Your task to perform on an android device: Open the stopwatch Image 0: 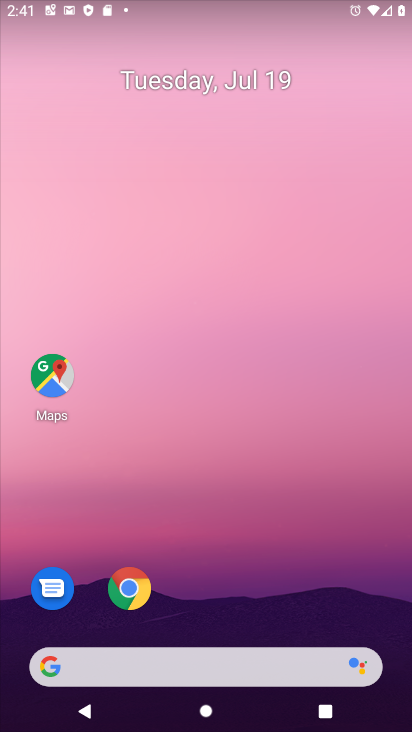
Step 0: drag from (393, 650) to (278, 66)
Your task to perform on an android device: Open the stopwatch Image 1: 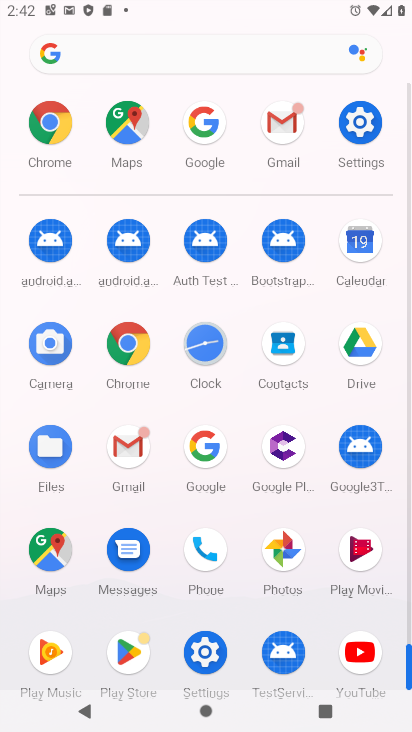
Step 1: click (206, 354)
Your task to perform on an android device: Open the stopwatch Image 2: 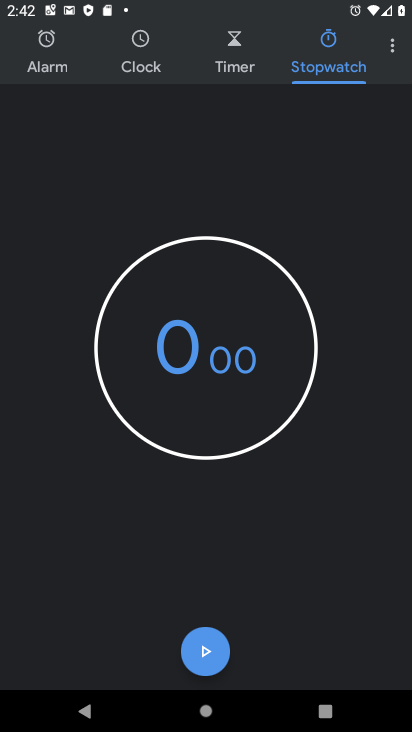
Step 2: task complete